Your task to perform on an android device: allow notifications from all sites in the chrome app Image 0: 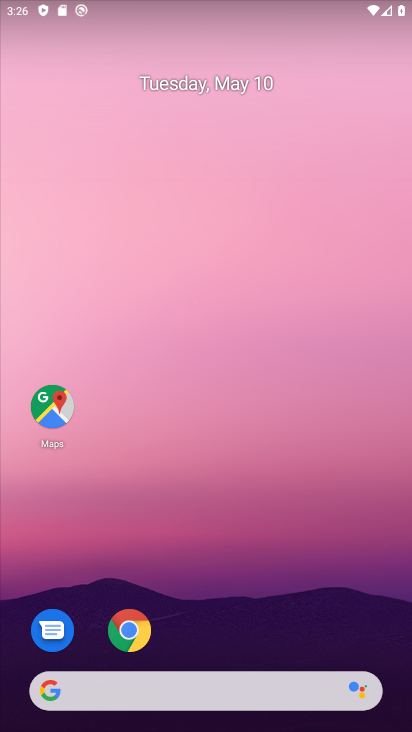
Step 0: click (133, 635)
Your task to perform on an android device: allow notifications from all sites in the chrome app Image 1: 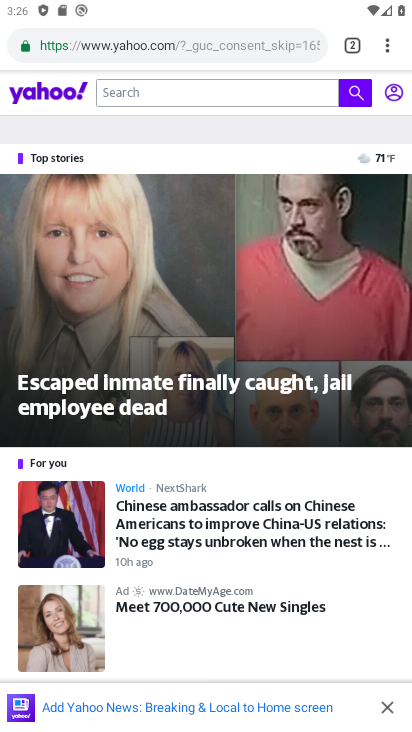
Step 1: click (377, 48)
Your task to perform on an android device: allow notifications from all sites in the chrome app Image 2: 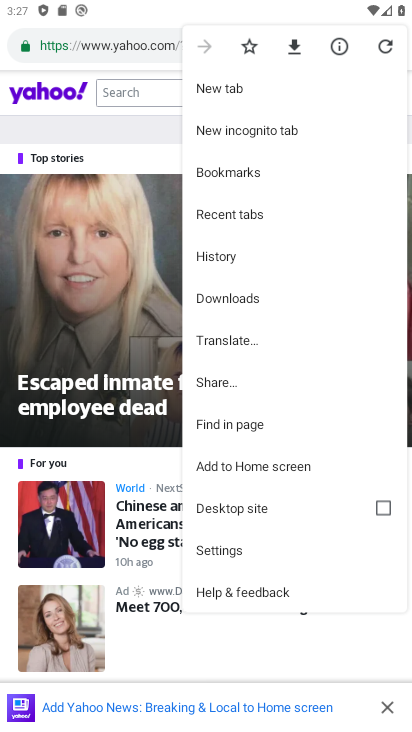
Step 2: click (244, 562)
Your task to perform on an android device: allow notifications from all sites in the chrome app Image 3: 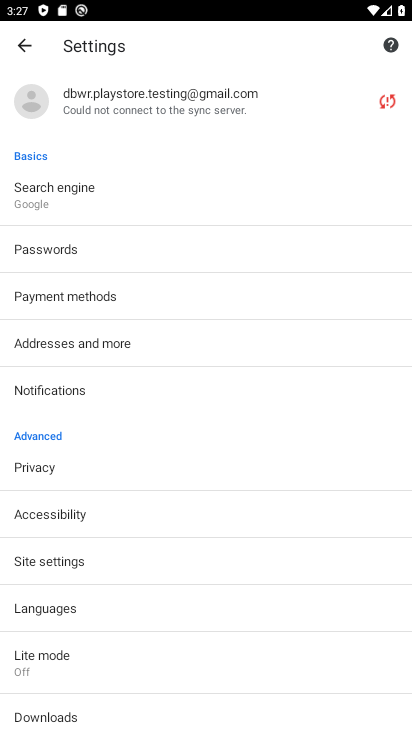
Step 3: click (102, 379)
Your task to perform on an android device: allow notifications from all sites in the chrome app Image 4: 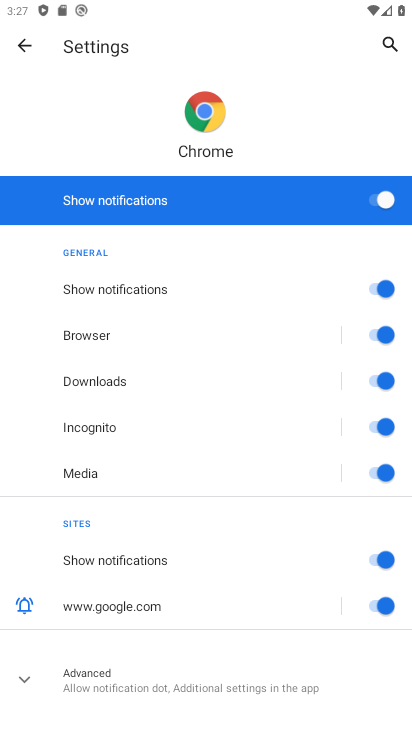
Step 4: task complete